Your task to perform on an android device: find snoozed emails in the gmail app Image 0: 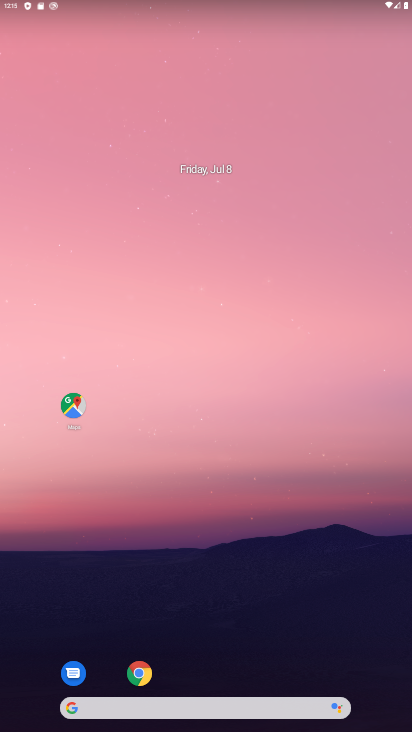
Step 0: drag from (224, 635) to (235, 218)
Your task to perform on an android device: find snoozed emails in the gmail app Image 1: 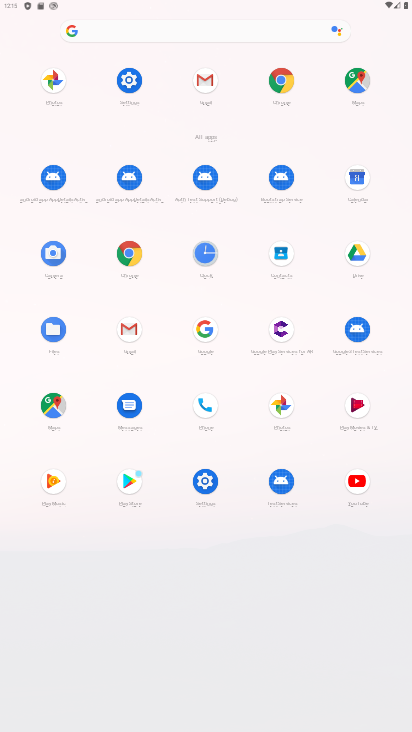
Step 1: click (207, 73)
Your task to perform on an android device: find snoozed emails in the gmail app Image 2: 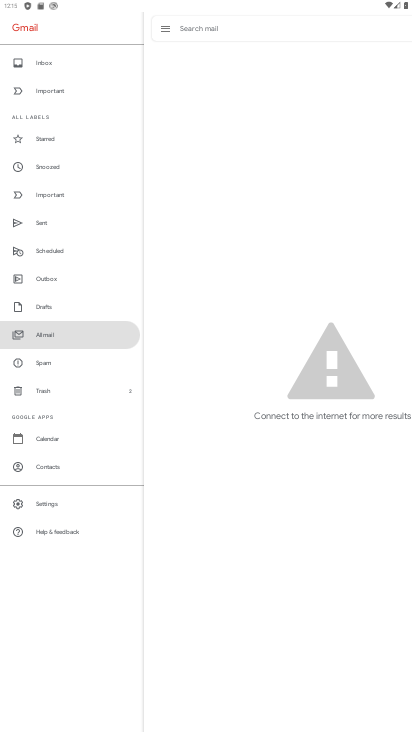
Step 2: click (55, 165)
Your task to perform on an android device: find snoozed emails in the gmail app Image 3: 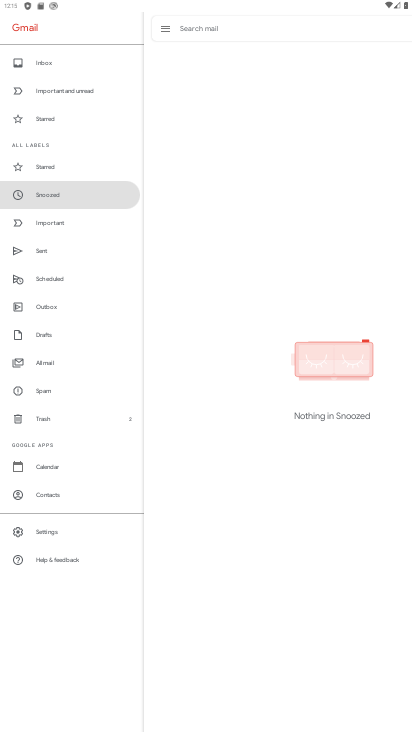
Step 3: task complete